Your task to perform on an android device: open wifi settings Image 0: 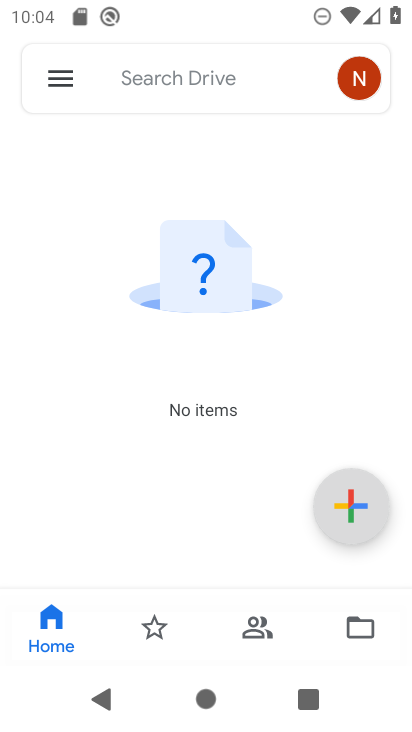
Step 0: press home button
Your task to perform on an android device: open wifi settings Image 1: 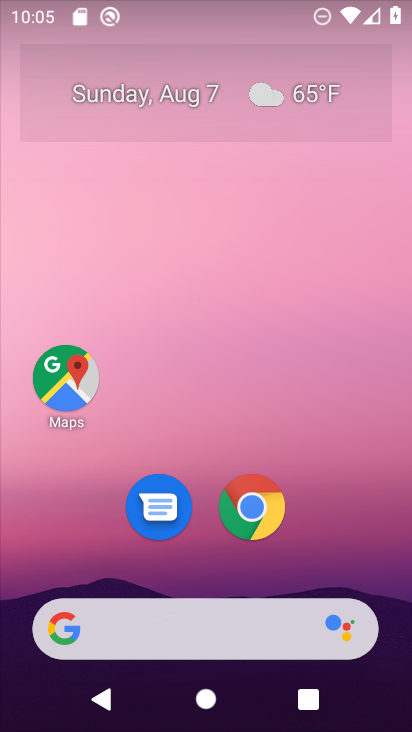
Step 1: drag from (349, 512) to (334, 5)
Your task to perform on an android device: open wifi settings Image 2: 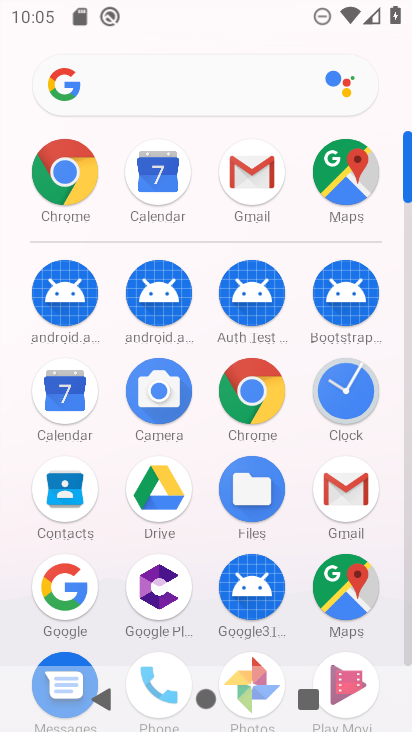
Step 2: drag from (299, 548) to (301, 92)
Your task to perform on an android device: open wifi settings Image 3: 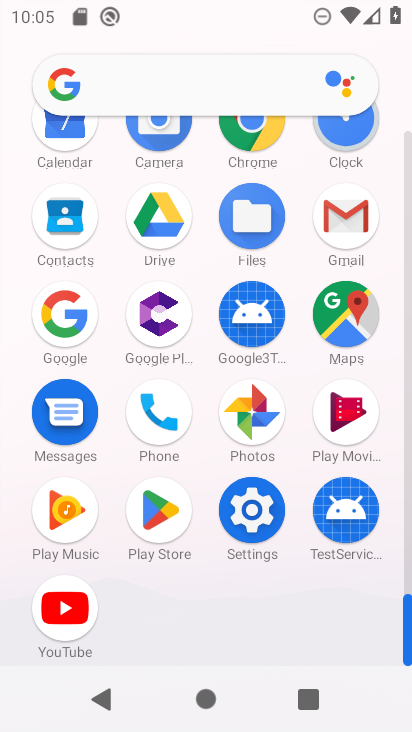
Step 3: click (243, 522)
Your task to perform on an android device: open wifi settings Image 4: 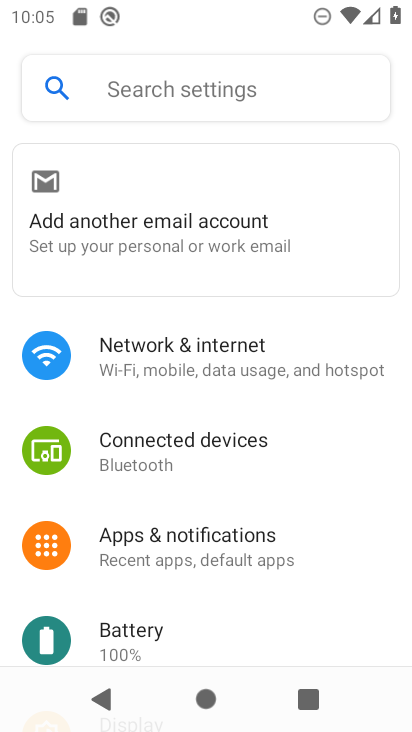
Step 4: click (148, 351)
Your task to perform on an android device: open wifi settings Image 5: 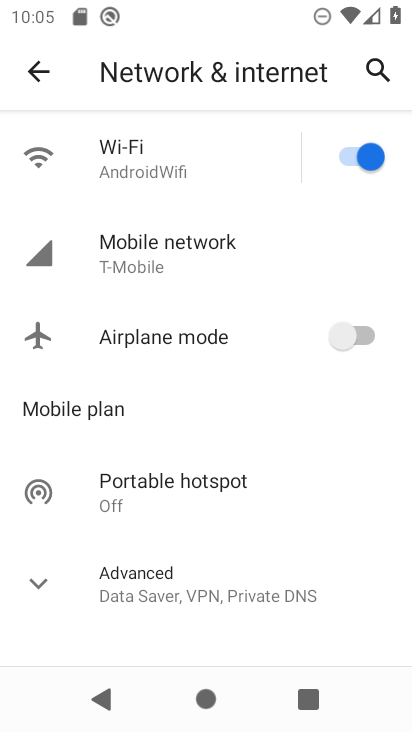
Step 5: click (156, 158)
Your task to perform on an android device: open wifi settings Image 6: 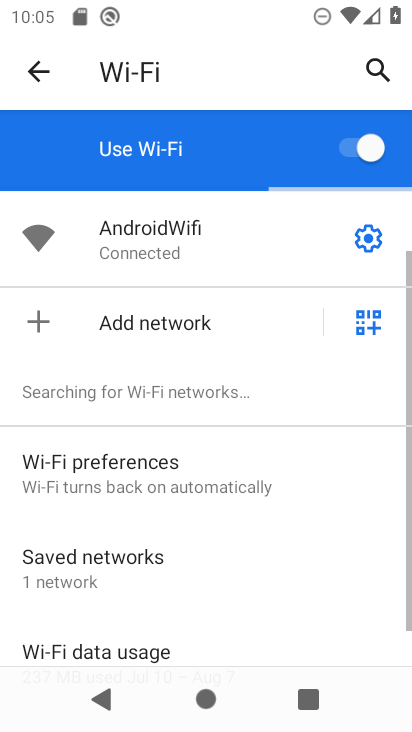
Step 6: click (368, 237)
Your task to perform on an android device: open wifi settings Image 7: 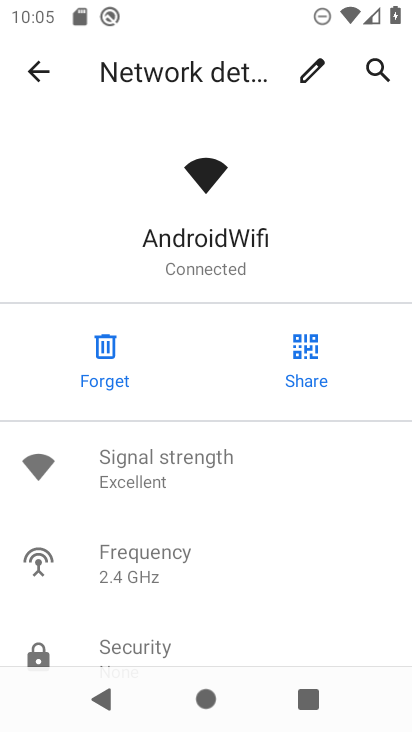
Step 7: task complete